Your task to perform on an android device: Go to accessibility settings Image 0: 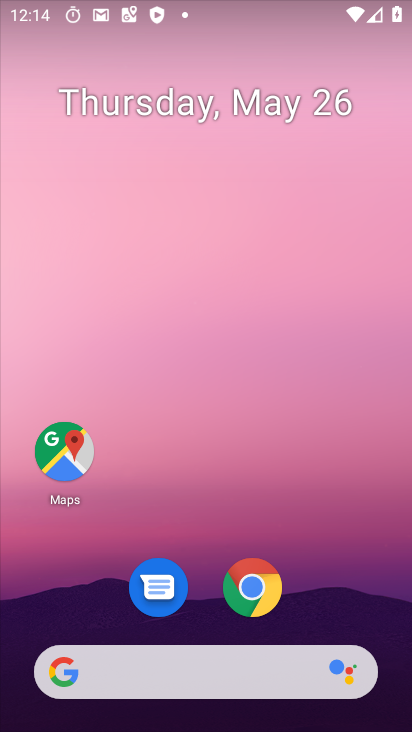
Step 0: drag from (296, 689) to (264, 134)
Your task to perform on an android device: Go to accessibility settings Image 1: 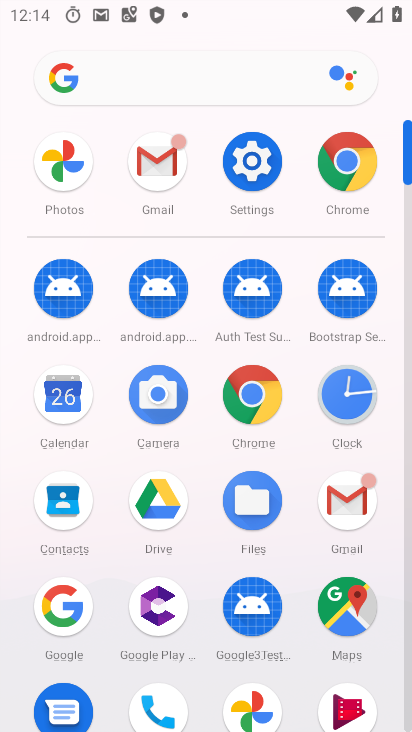
Step 1: click (243, 172)
Your task to perform on an android device: Go to accessibility settings Image 2: 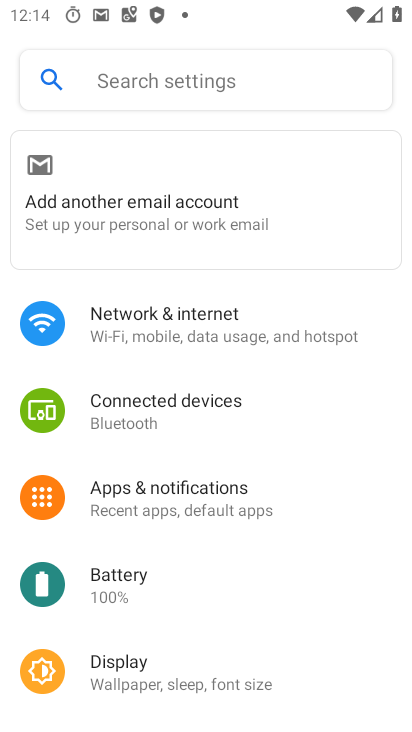
Step 2: click (124, 81)
Your task to perform on an android device: Go to accessibility settings Image 3: 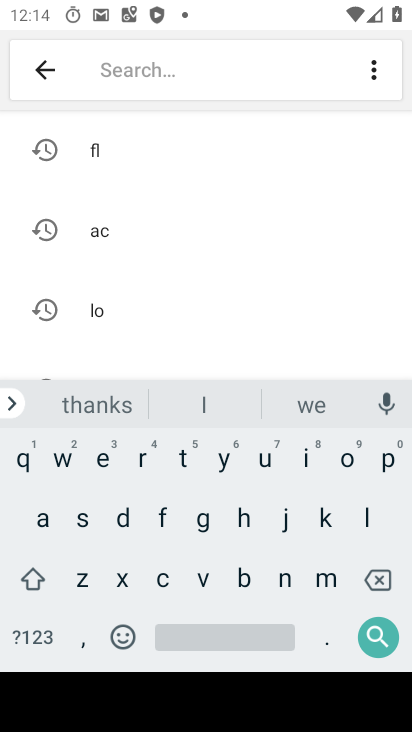
Step 3: click (38, 522)
Your task to perform on an android device: Go to accessibility settings Image 4: 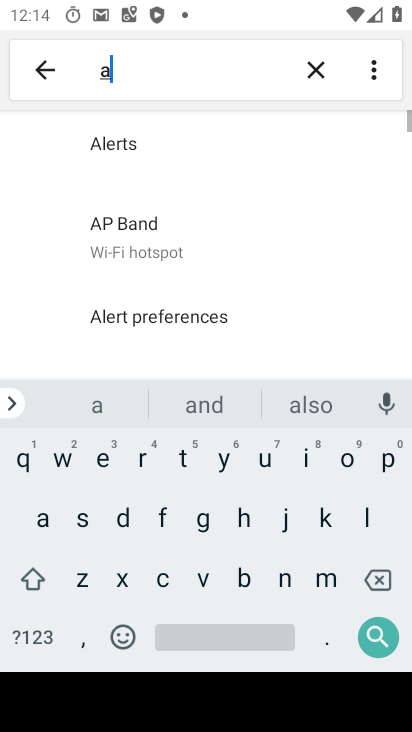
Step 4: click (156, 585)
Your task to perform on an android device: Go to accessibility settings Image 5: 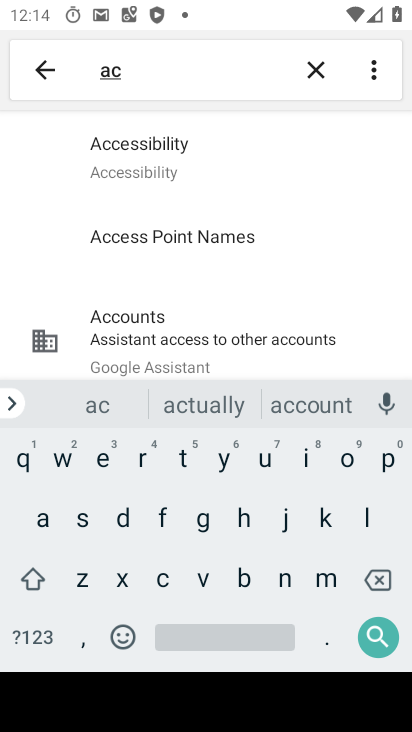
Step 5: click (130, 178)
Your task to perform on an android device: Go to accessibility settings Image 6: 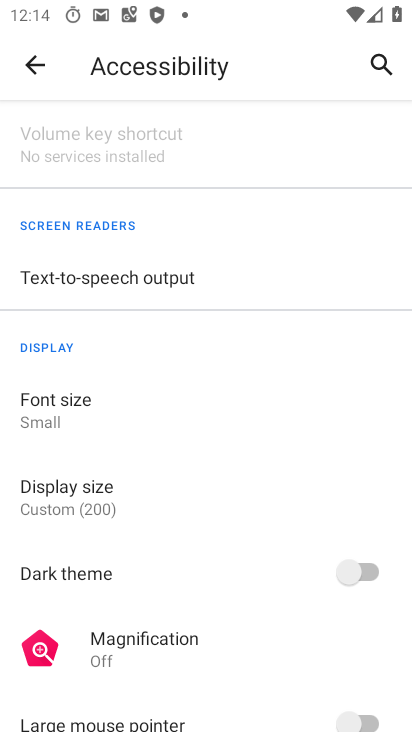
Step 6: task complete